Your task to perform on an android device: toggle data saver in the chrome app Image 0: 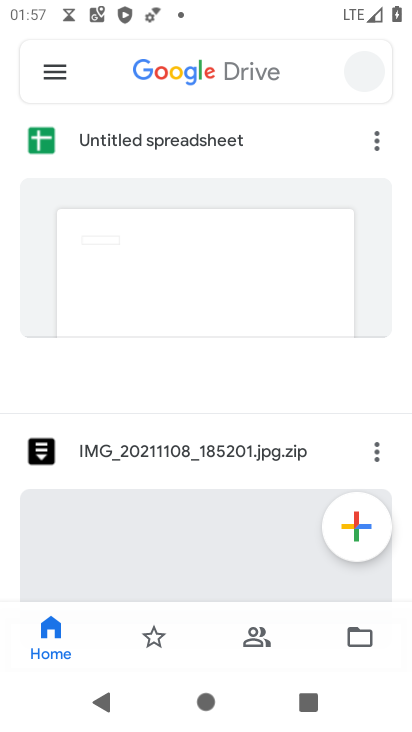
Step 0: press home button
Your task to perform on an android device: toggle data saver in the chrome app Image 1: 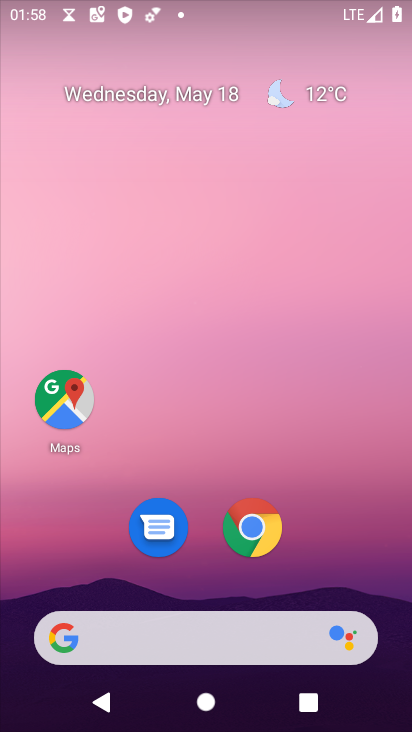
Step 1: click (260, 525)
Your task to perform on an android device: toggle data saver in the chrome app Image 2: 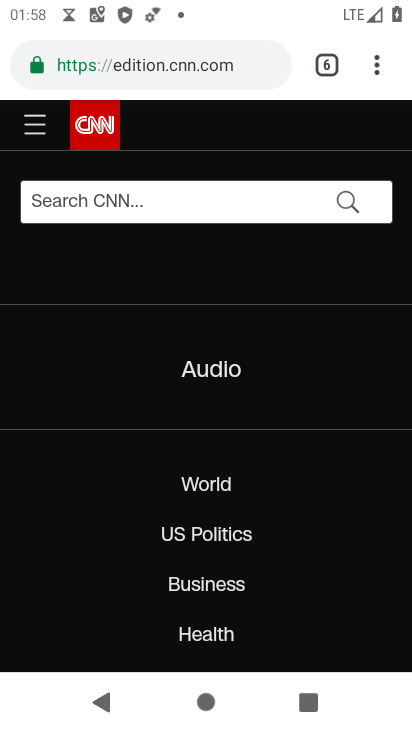
Step 2: click (365, 60)
Your task to perform on an android device: toggle data saver in the chrome app Image 3: 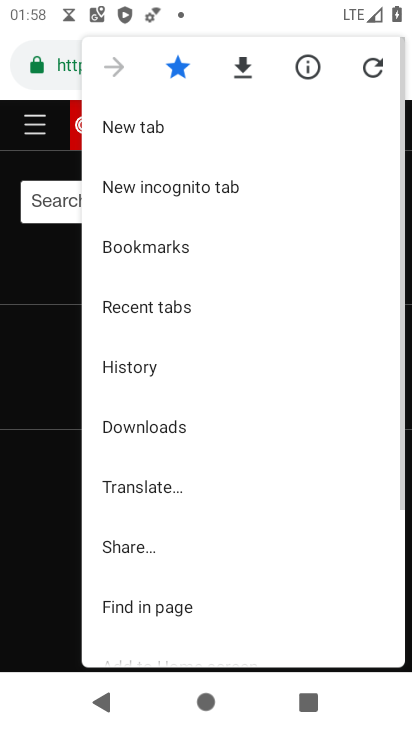
Step 3: drag from (212, 497) to (240, 153)
Your task to perform on an android device: toggle data saver in the chrome app Image 4: 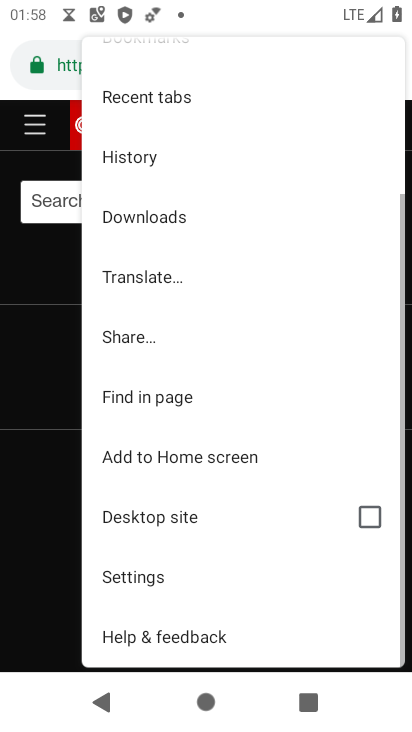
Step 4: click (171, 574)
Your task to perform on an android device: toggle data saver in the chrome app Image 5: 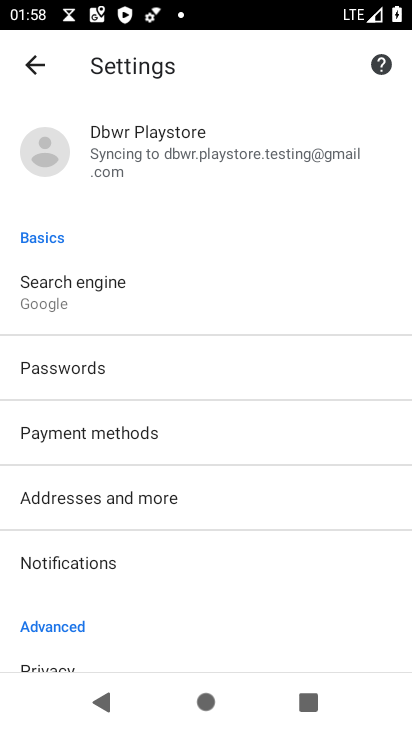
Step 5: drag from (180, 613) to (183, 213)
Your task to perform on an android device: toggle data saver in the chrome app Image 6: 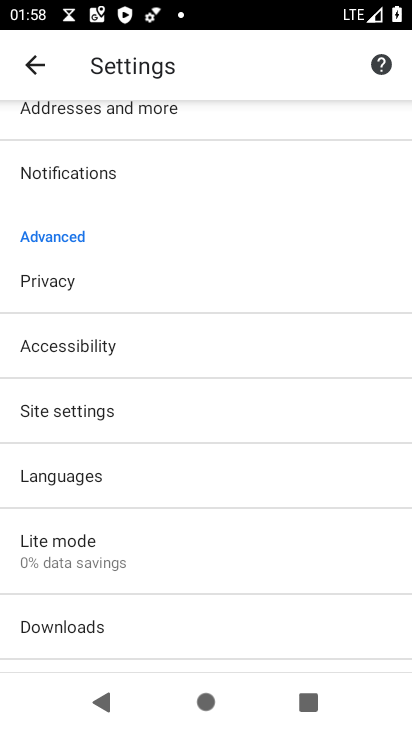
Step 6: click (103, 551)
Your task to perform on an android device: toggle data saver in the chrome app Image 7: 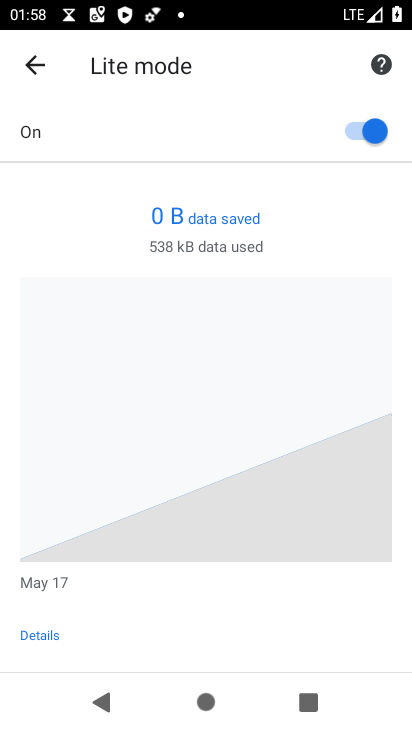
Step 7: click (362, 130)
Your task to perform on an android device: toggle data saver in the chrome app Image 8: 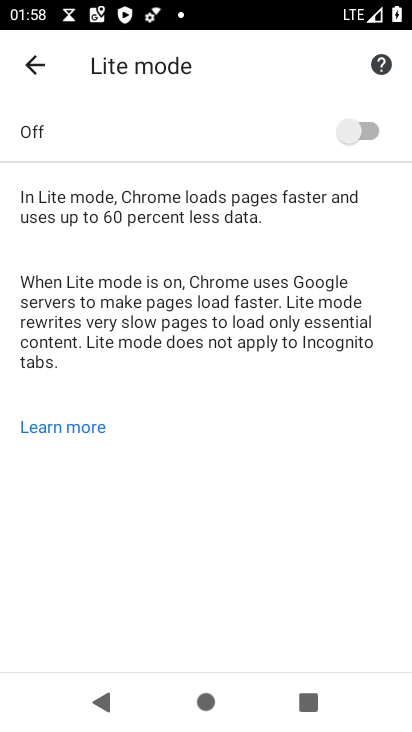
Step 8: task complete